Your task to perform on an android device: Open Wikipedia Image 0: 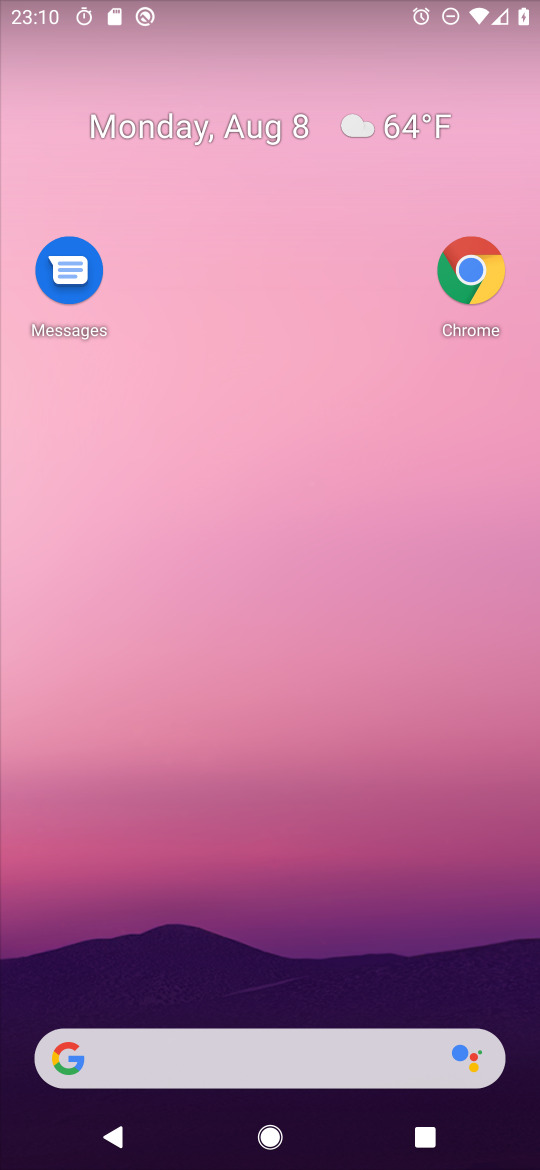
Step 0: drag from (252, 1016) to (323, 0)
Your task to perform on an android device: Open Wikipedia Image 1: 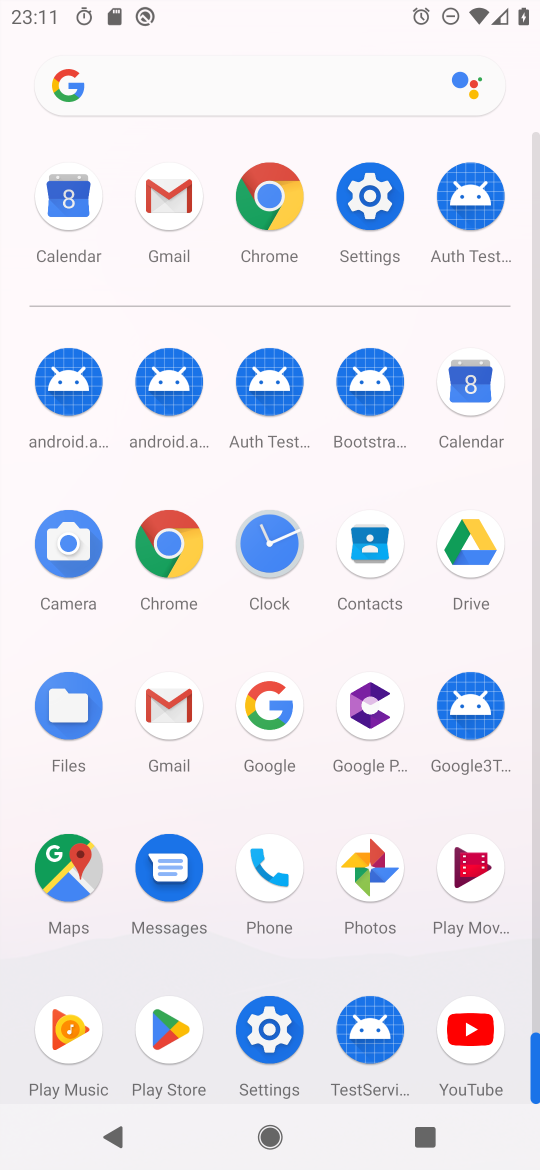
Step 1: click (162, 524)
Your task to perform on an android device: Open Wikipedia Image 2: 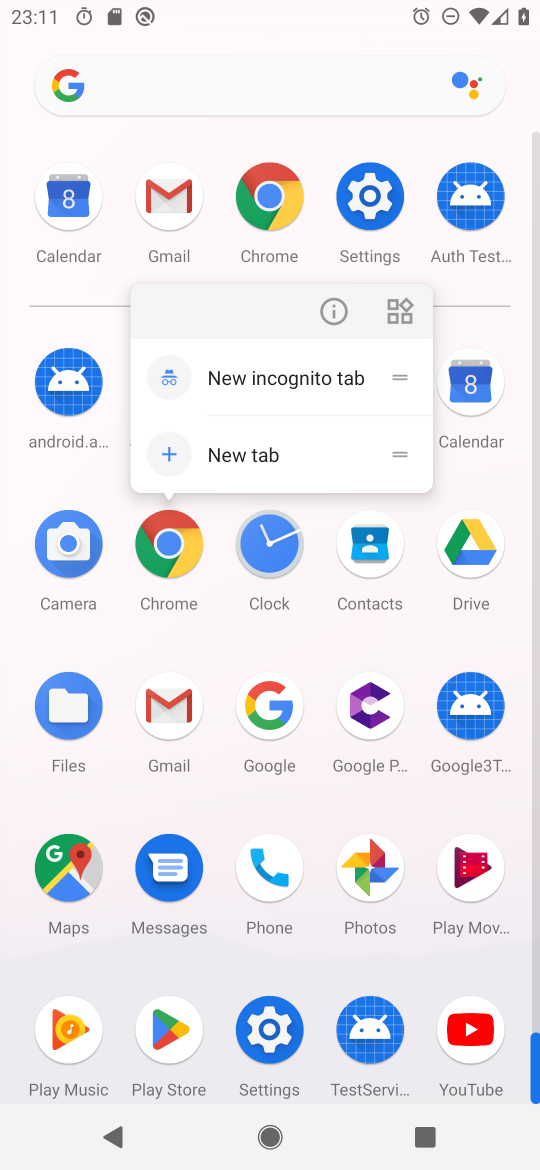
Step 2: click (330, 317)
Your task to perform on an android device: Open Wikipedia Image 3: 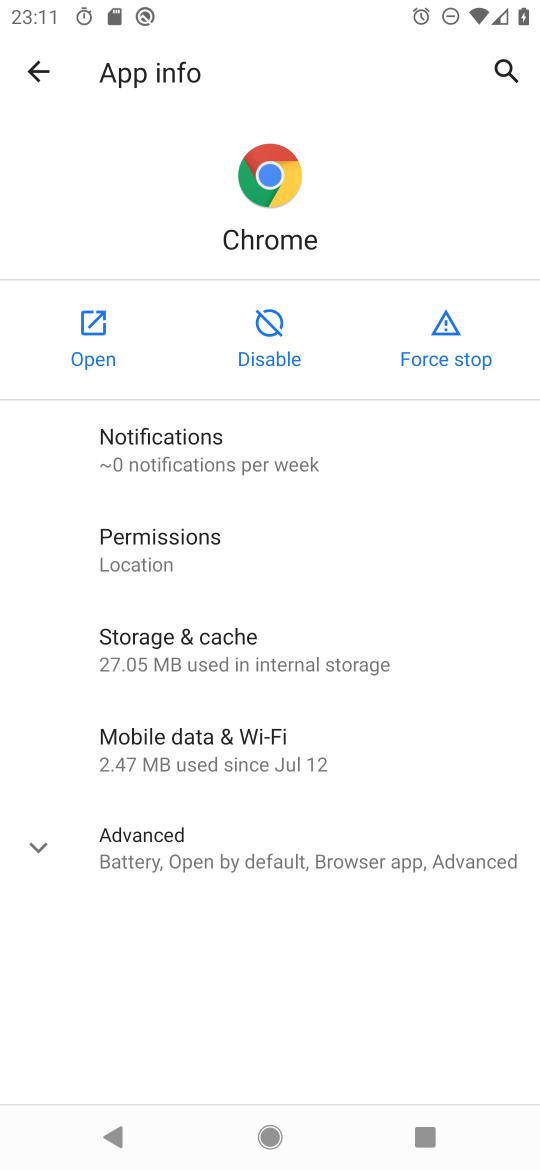
Step 3: click (93, 338)
Your task to perform on an android device: Open Wikipedia Image 4: 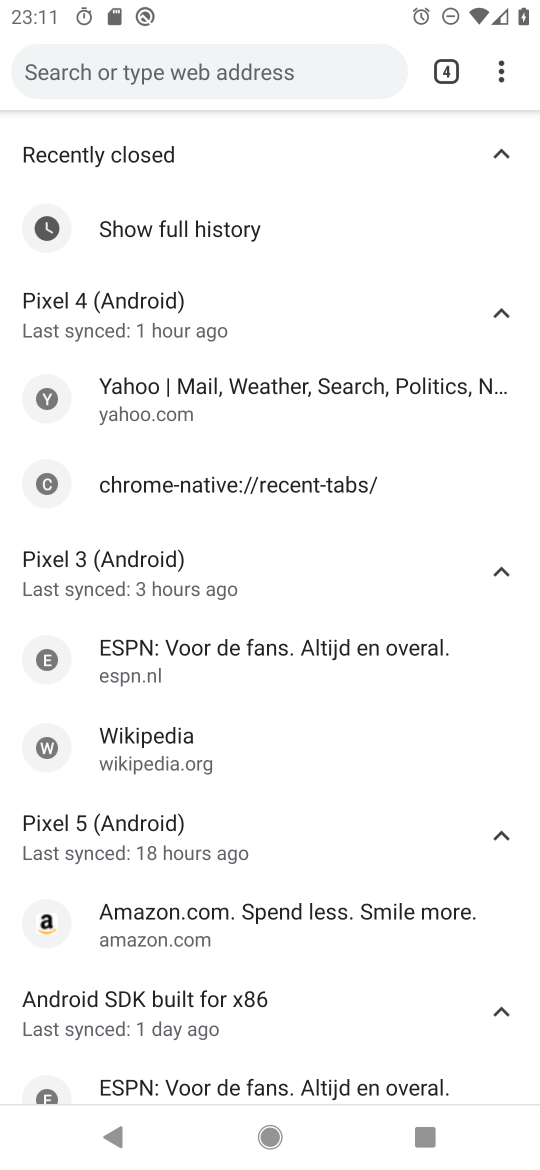
Step 4: click (185, 81)
Your task to perform on an android device: Open Wikipedia Image 5: 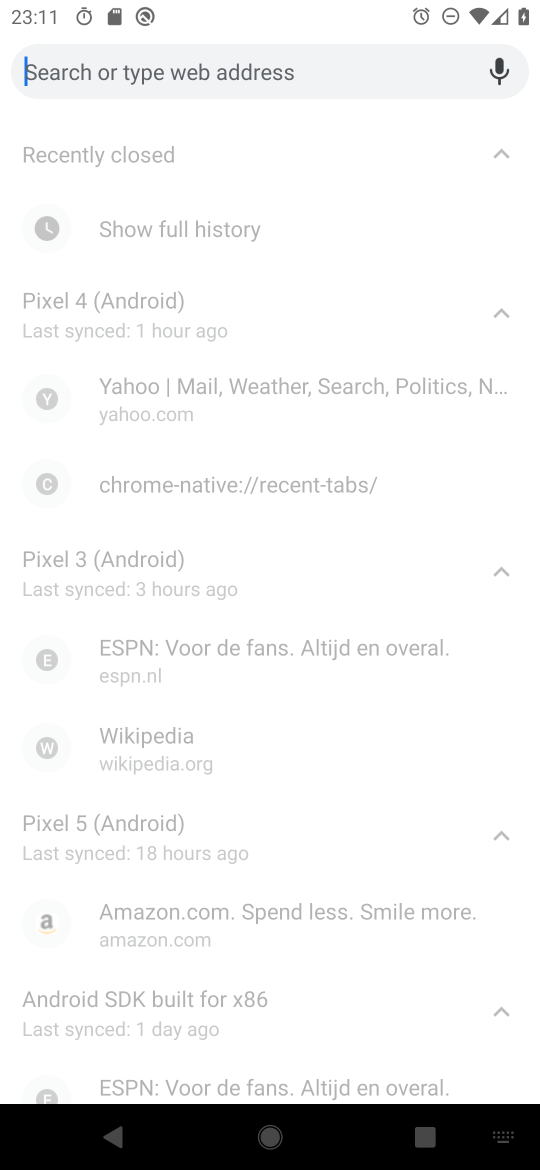
Step 5: type "wikipedia"
Your task to perform on an android device: Open Wikipedia Image 6: 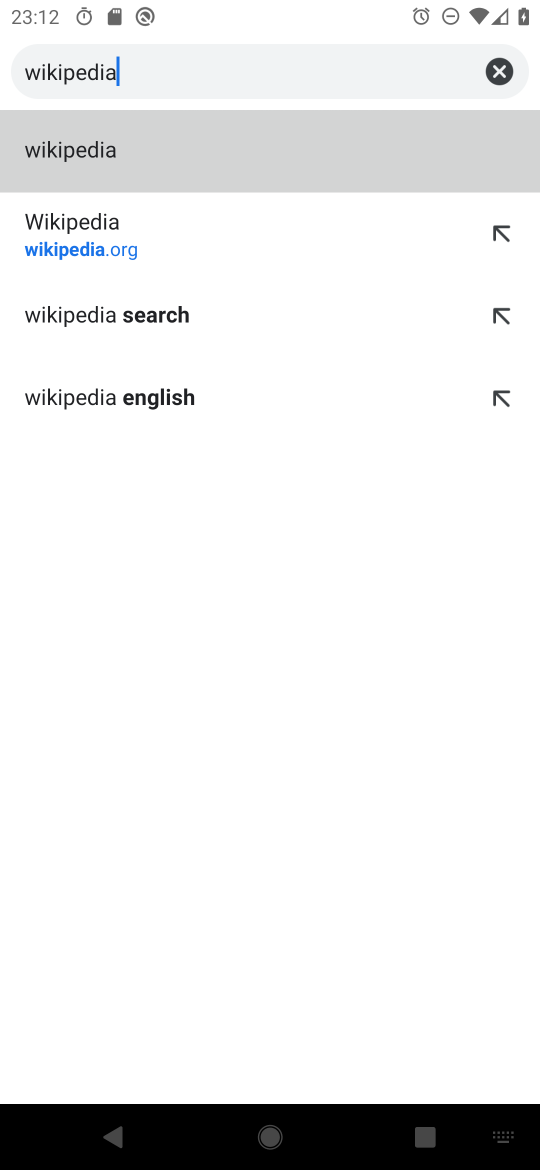
Step 6: click (26, 203)
Your task to perform on an android device: Open Wikipedia Image 7: 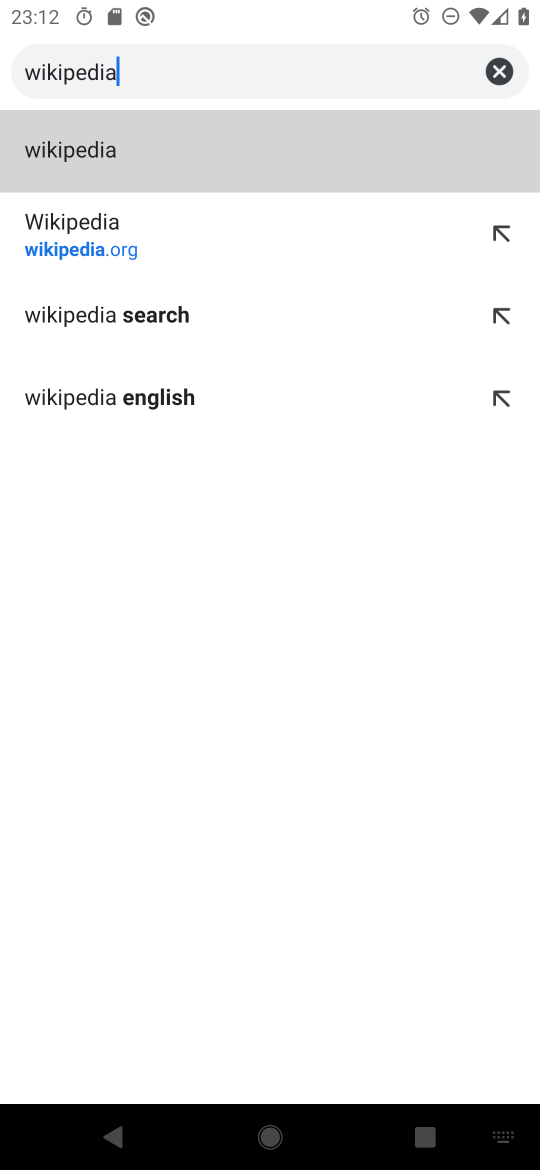
Step 7: click (58, 220)
Your task to perform on an android device: Open Wikipedia Image 8: 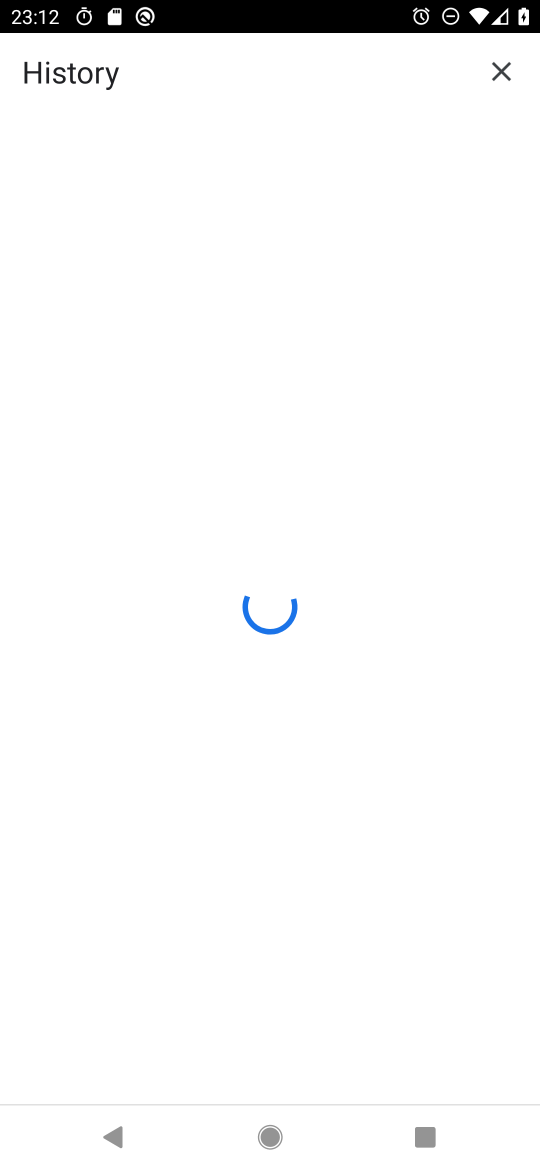
Step 8: task complete